Your task to perform on an android device: Go to Yahoo.com Image 0: 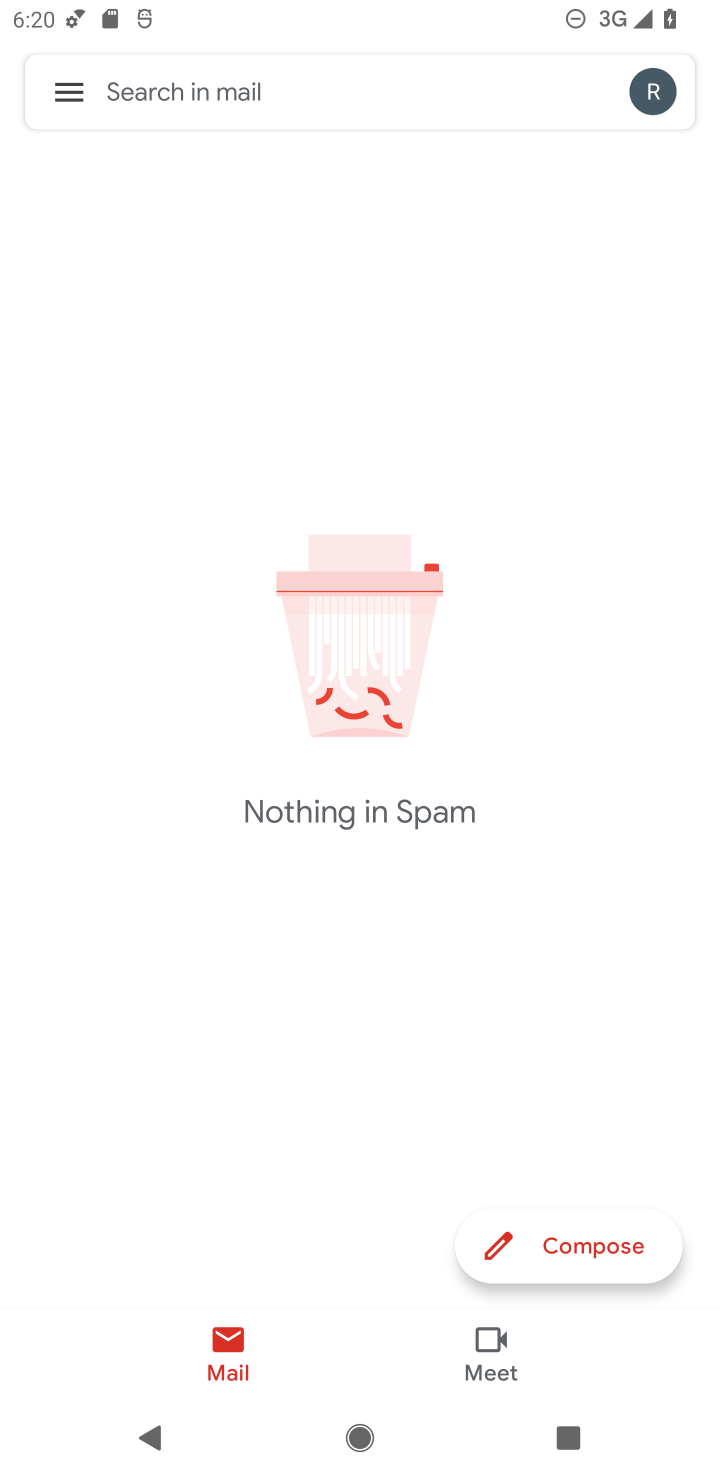
Step 0: press home button
Your task to perform on an android device: Go to Yahoo.com Image 1: 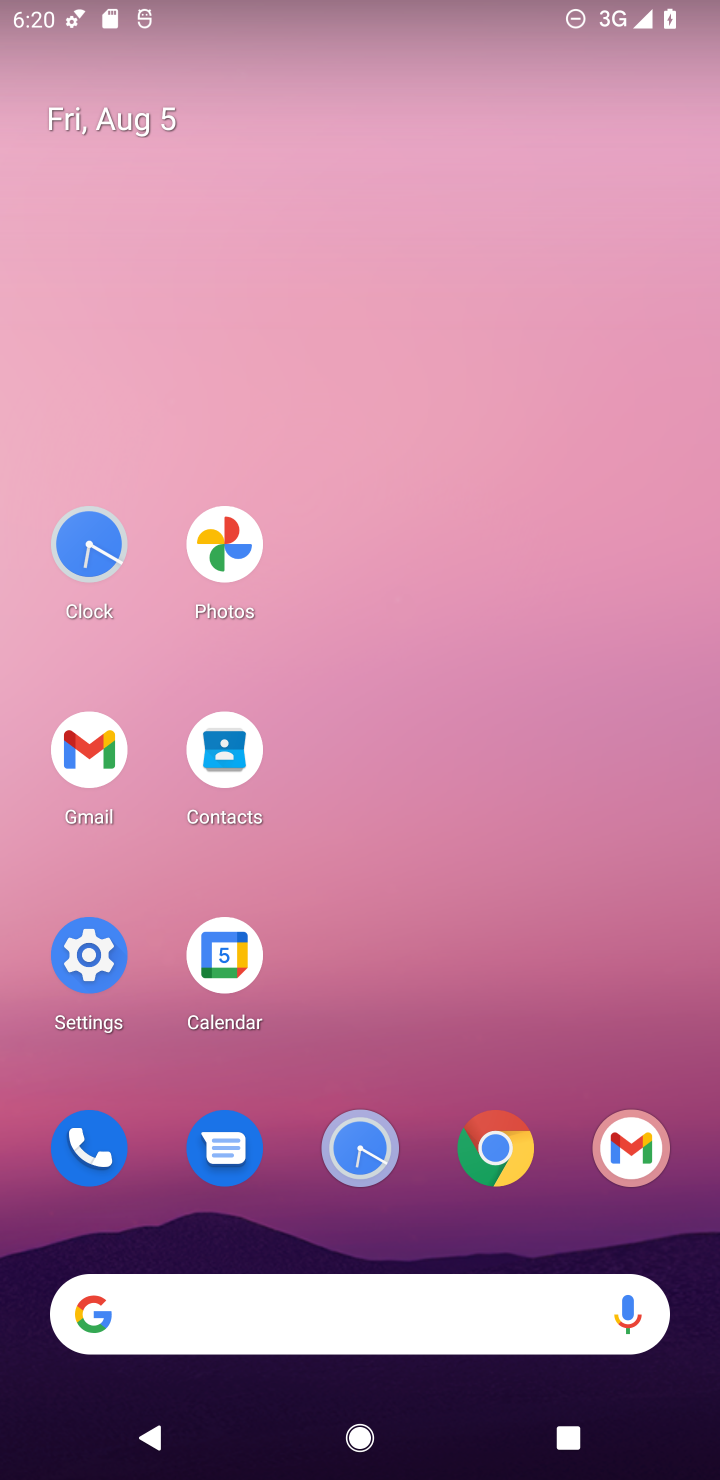
Step 1: click (482, 1124)
Your task to perform on an android device: Go to Yahoo.com Image 2: 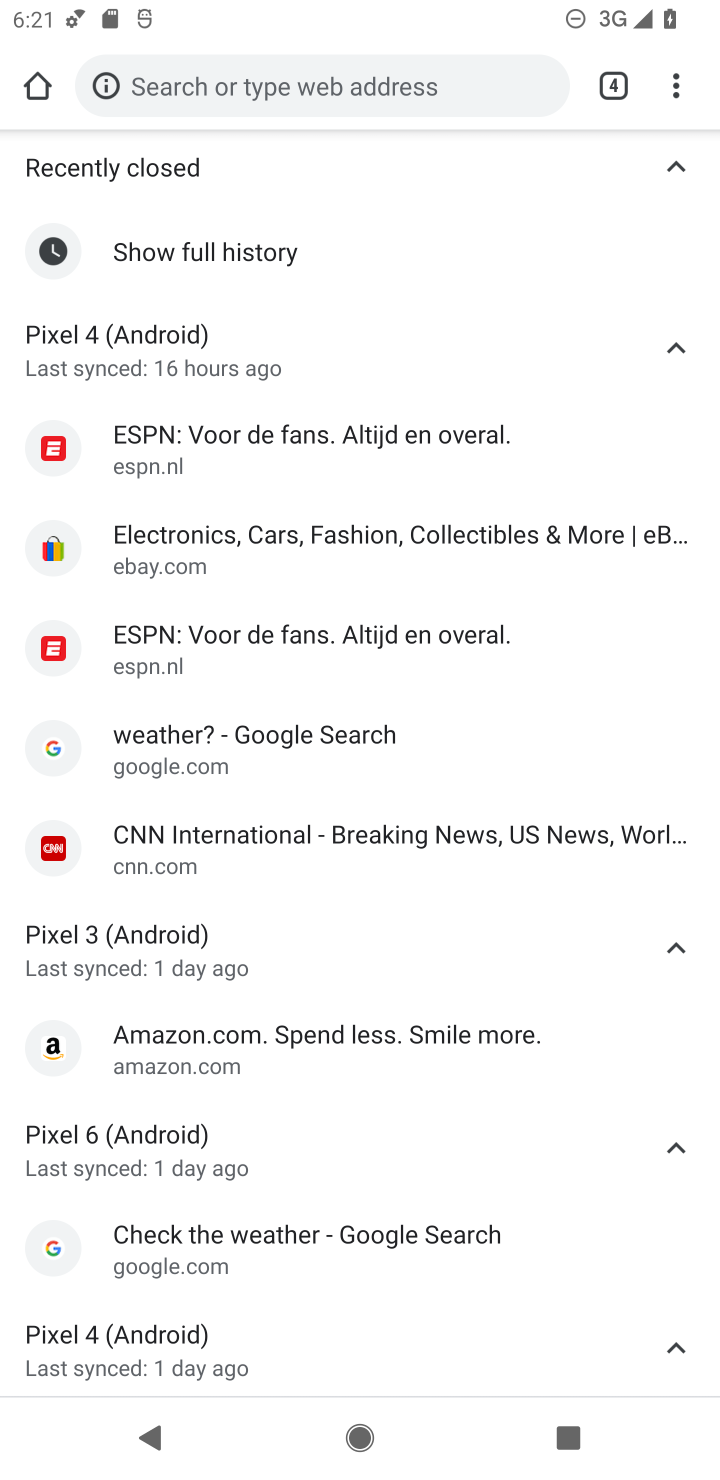
Step 2: click (670, 93)
Your task to perform on an android device: Go to Yahoo.com Image 3: 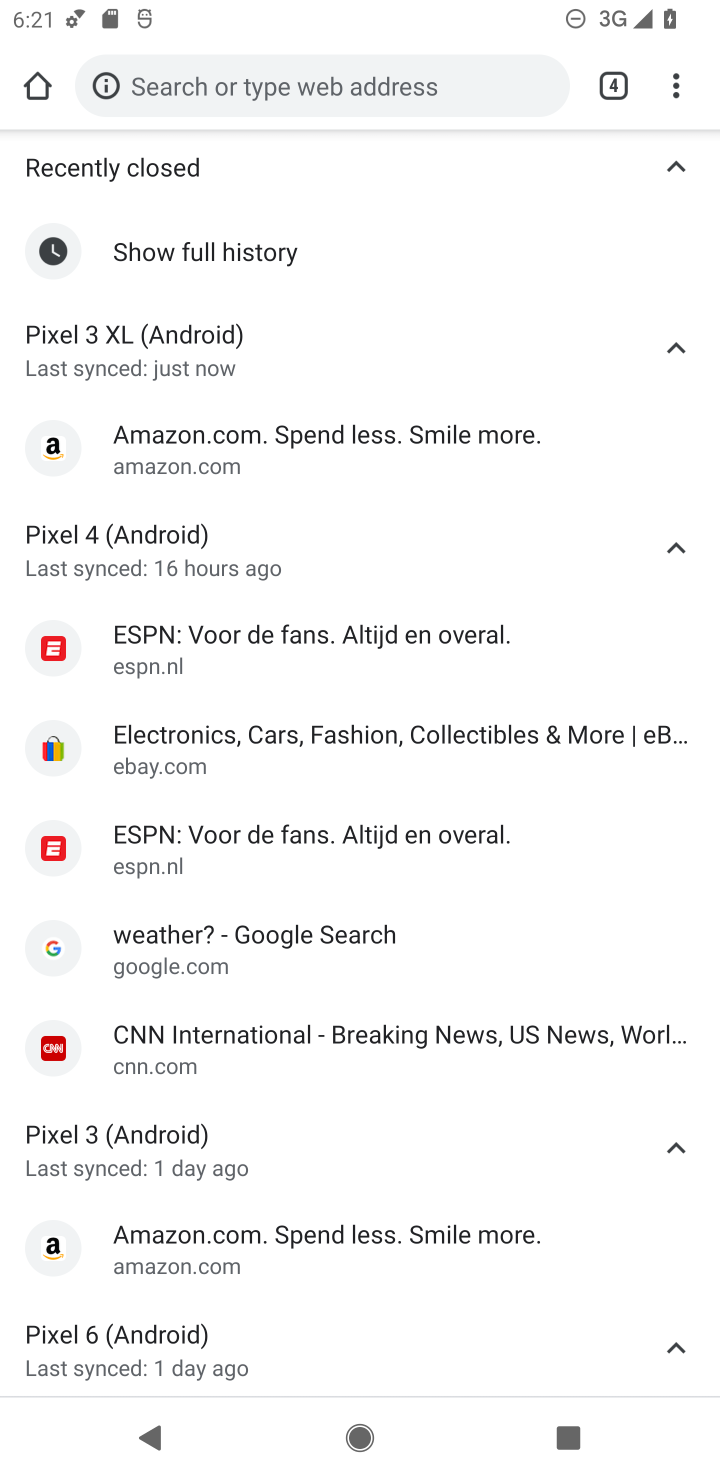
Step 3: click (680, 74)
Your task to perform on an android device: Go to Yahoo.com Image 4: 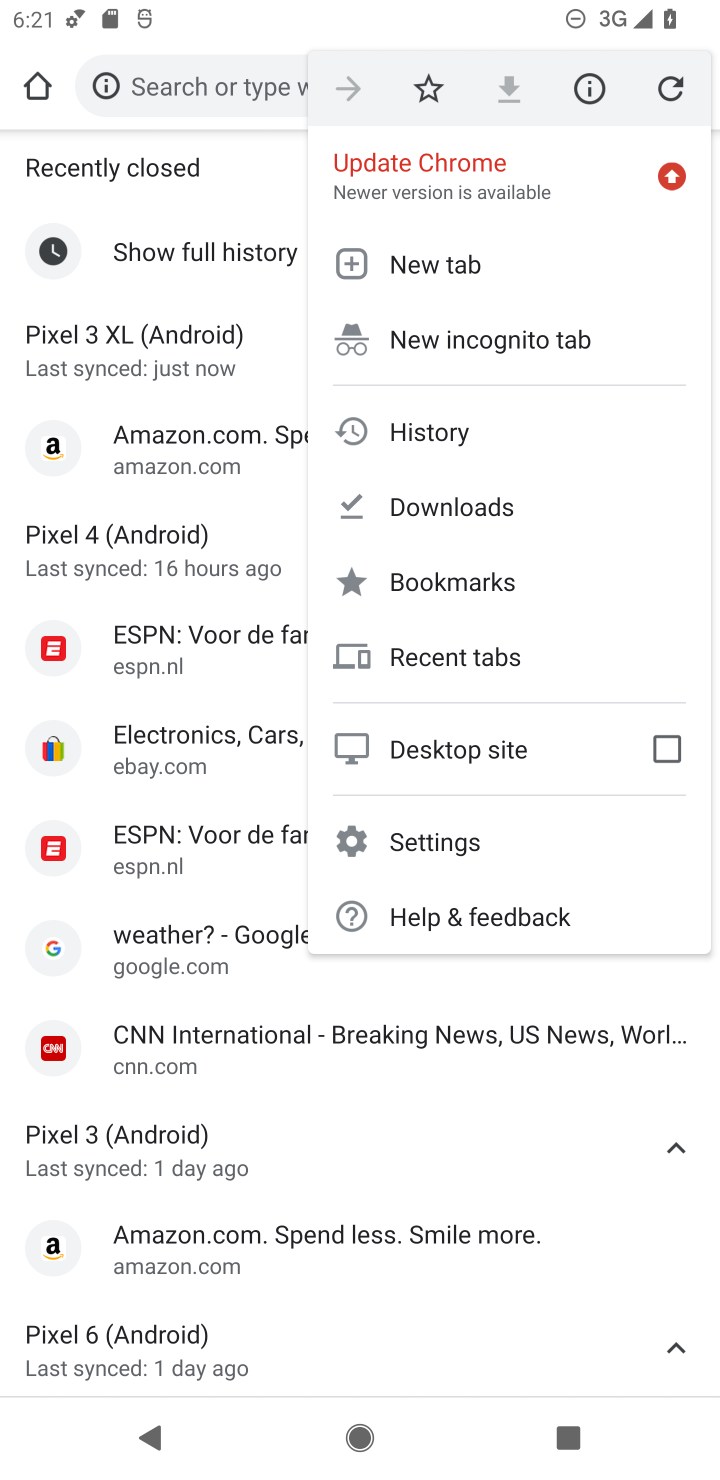
Step 4: click (464, 265)
Your task to perform on an android device: Go to Yahoo.com Image 5: 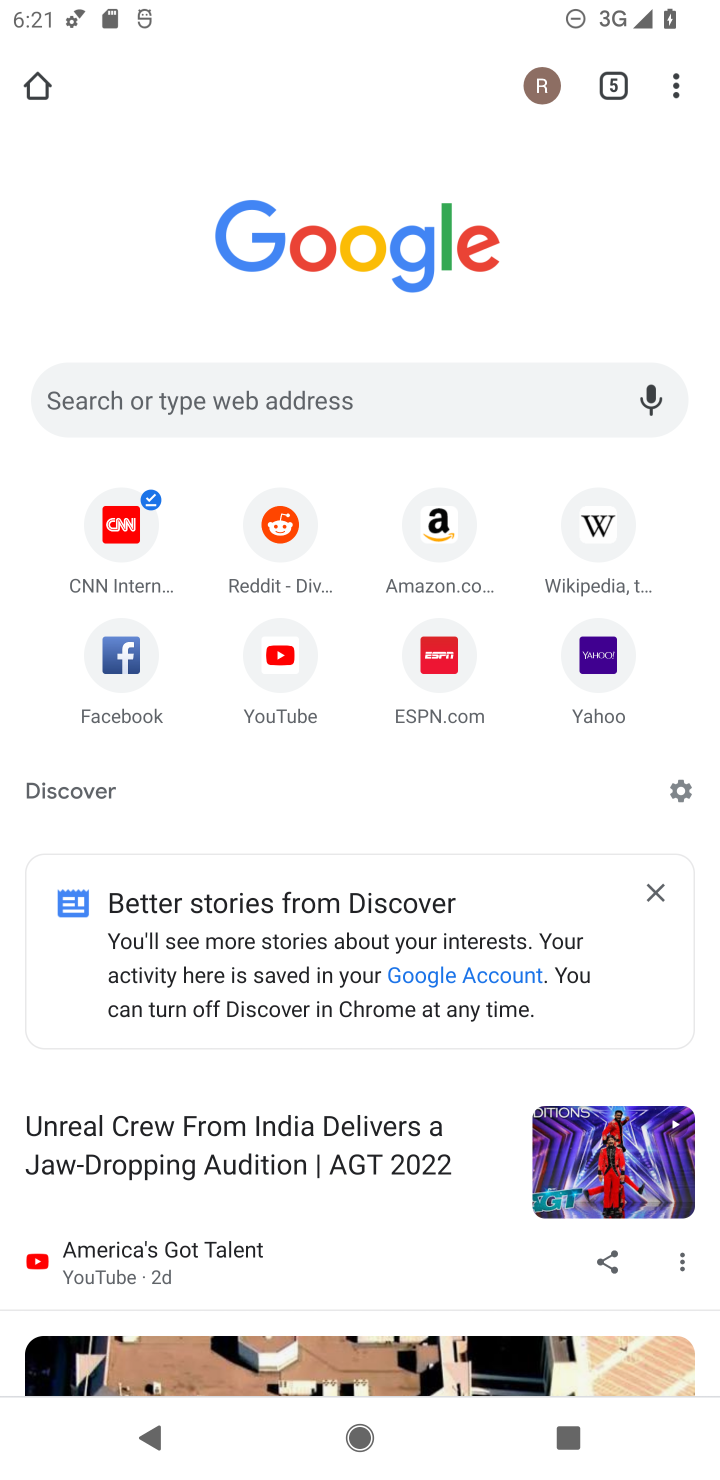
Step 5: click (575, 645)
Your task to perform on an android device: Go to Yahoo.com Image 6: 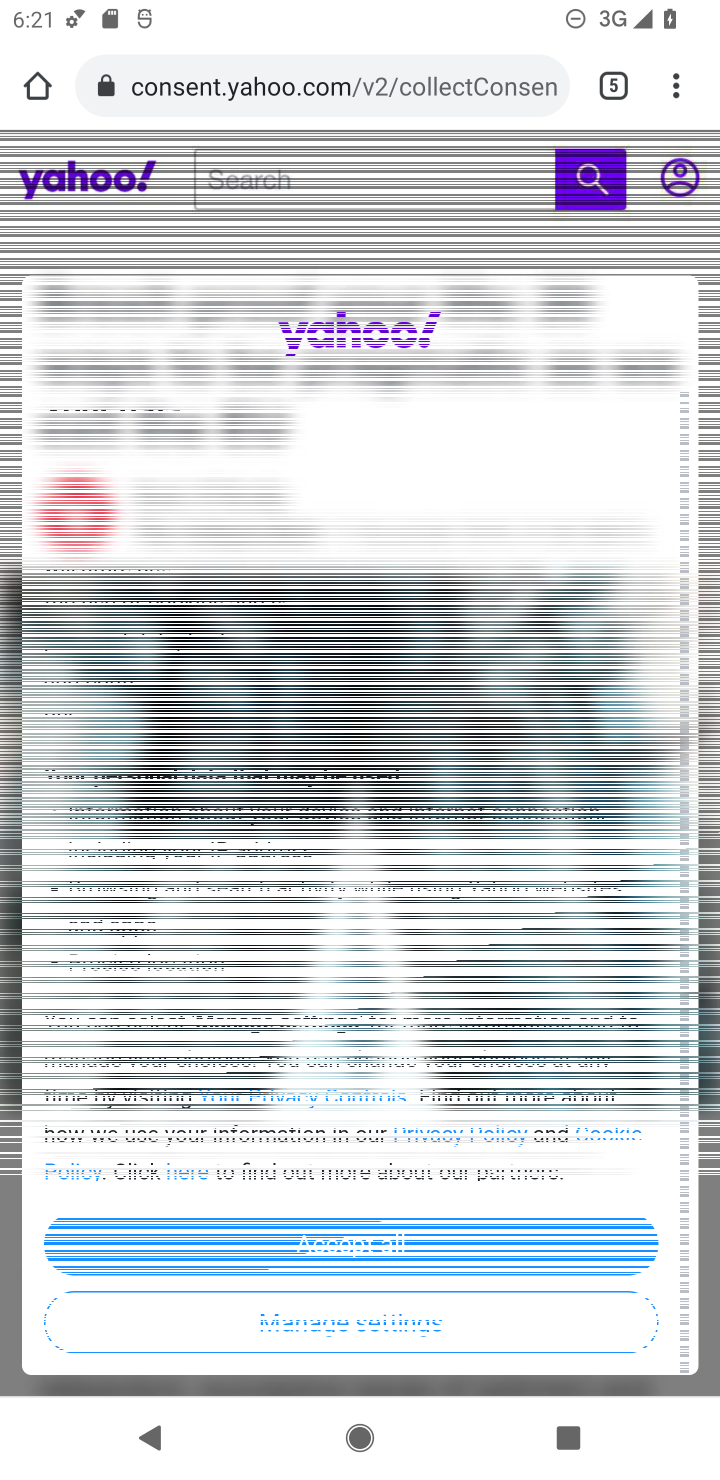
Step 6: click (385, 1252)
Your task to perform on an android device: Go to Yahoo.com Image 7: 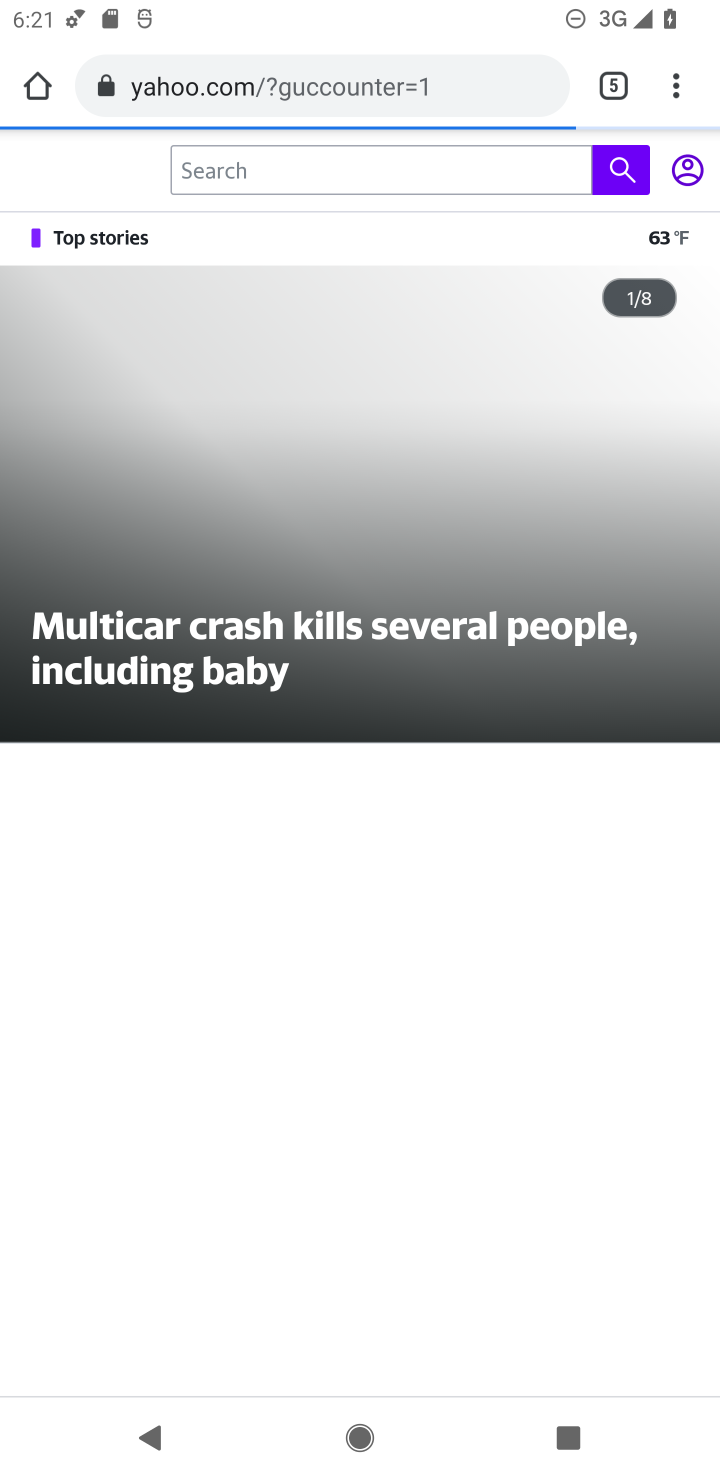
Step 7: click (385, 1252)
Your task to perform on an android device: Go to Yahoo.com Image 8: 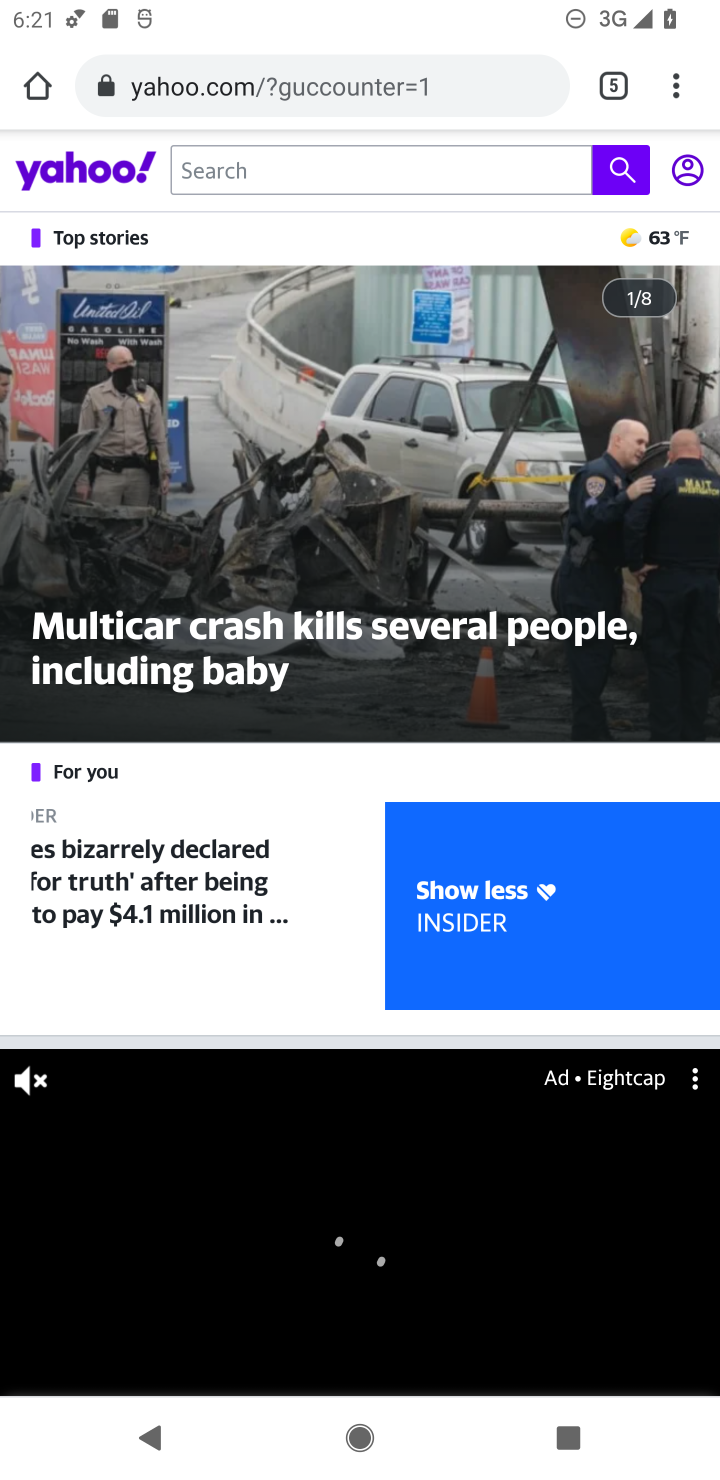
Step 8: task complete